Your task to perform on an android device: delete a single message in the gmail app Image 0: 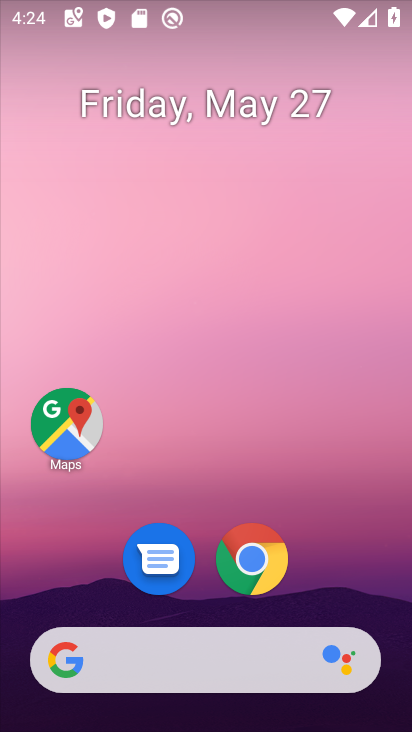
Step 0: drag from (397, 670) to (364, 106)
Your task to perform on an android device: delete a single message in the gmail app Image 1: 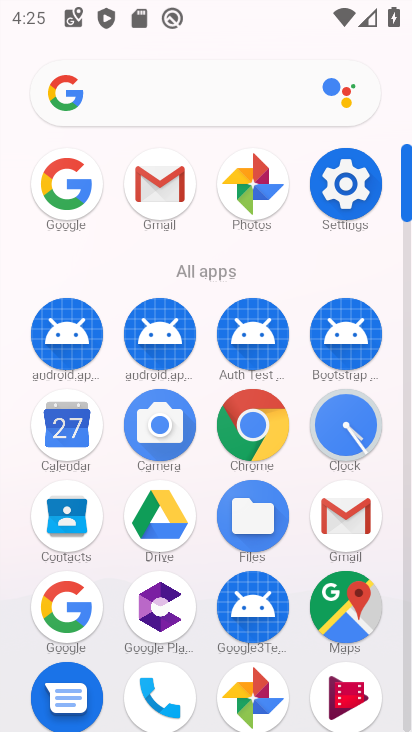
Step 1: click (350, 501)
Your task to perform on an android device: delete a single message in the gmail app Image 2: 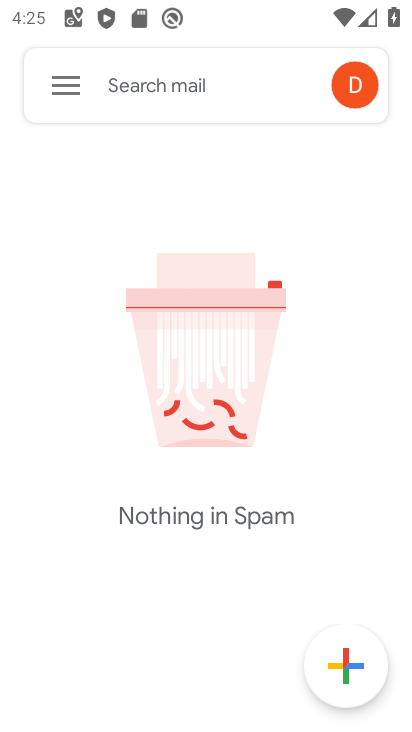
Step 2: click (61, 82)
Your task to perform on an android device: delete a single message in the gmail app Image 3: 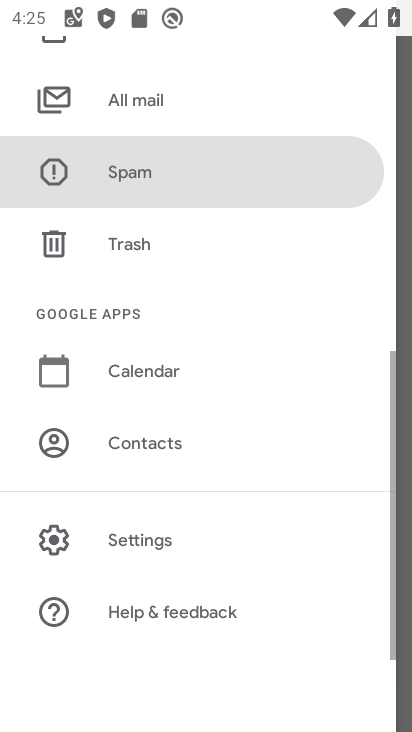
Step 3: drag from (244, 85) to (322, 726)
Your task to perform on an android device: delete a single message in the gmail app Image 4: 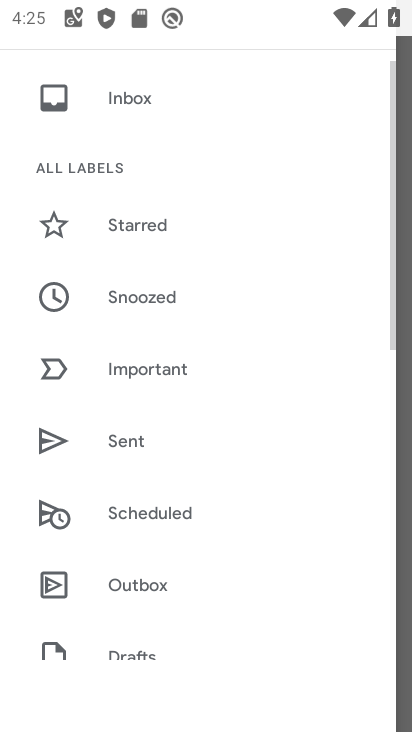
Step 4: drag from (227, 99) to (300, 611)
Your task to perform on an android device: delete a single message in the gmail app Image 5: 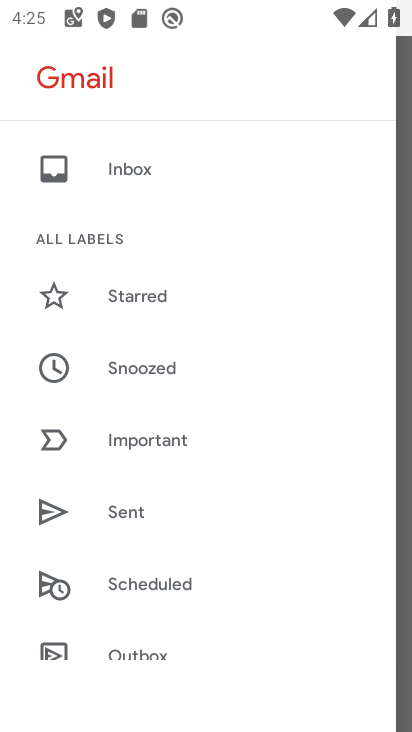
Step 5: click (107, 157)
Your task to perform on an android device: delete a single message in the gmail app Image 6: 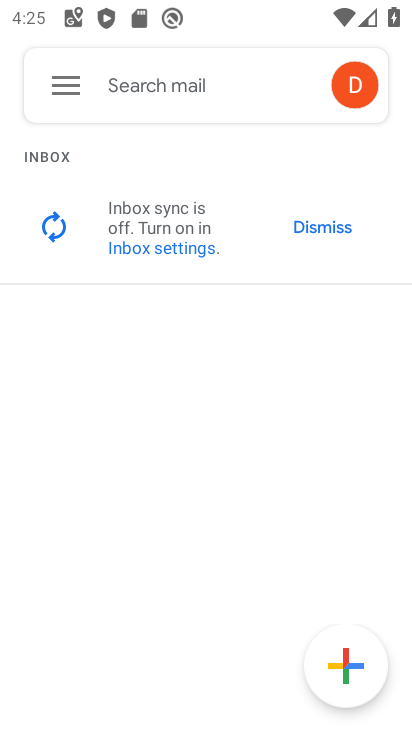
Step 6: task complete